Your task to perform on an android device: Go to accessibility settings Image 0: 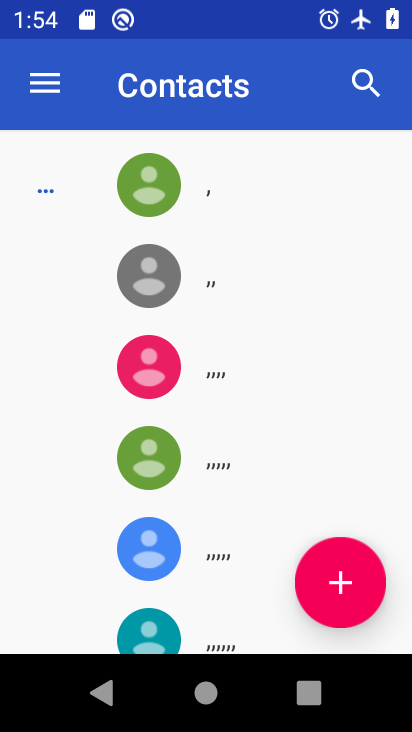
Step 0: press home button
Your task to perform on an android device: Go to accessibility settings Image 1: 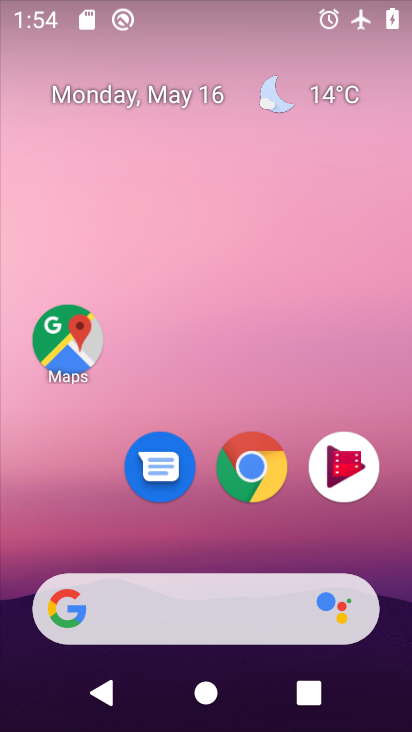
Step 1: drag from (215, 552) to (215, 192)
Your task to perform on an android device: Go to accessibility settings Image 2: 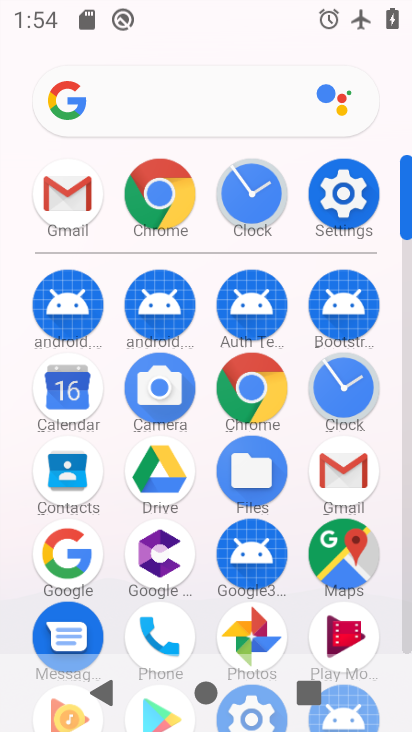
Step 2: click (340, 188)
Your task to perform on an android device: Go to accessibility settings Image 3: 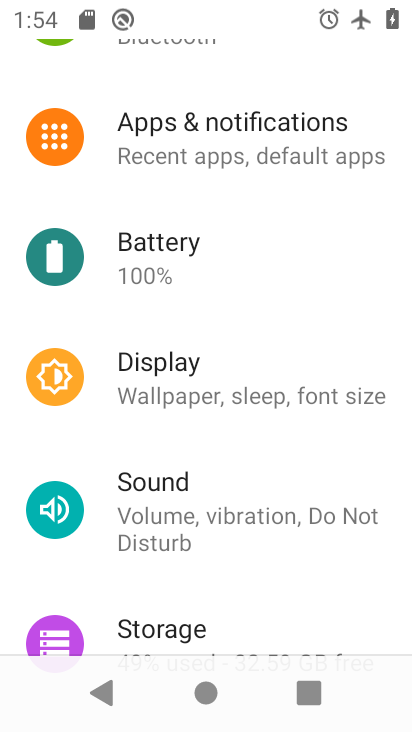
Step 3: drag from (208, 597) to (285, 158)
Your task to perform on an android device: Go to accessibility settings Image 4: 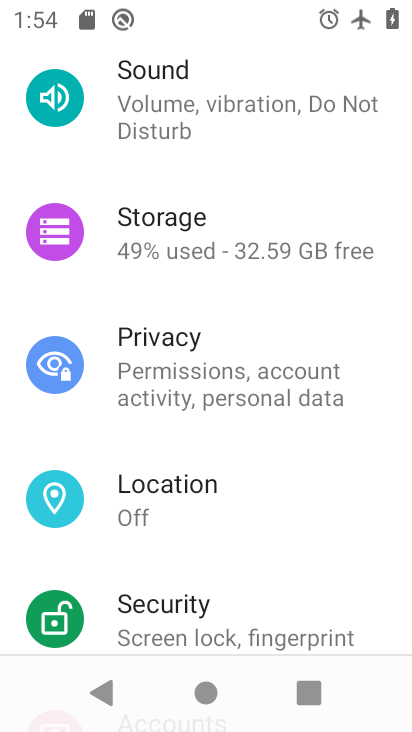
Step 4: drag from (200, 555) to (286, 158)
Your task to perform on an android device: Go to accessibility settings Image 5: 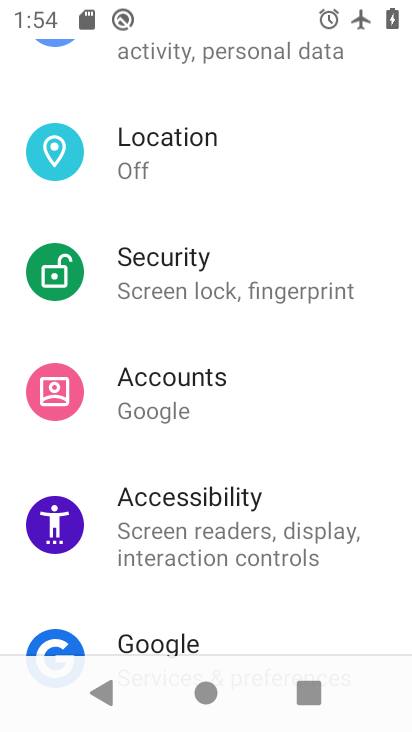
Step 5: click (157, 533)
Your task to perform on an android device: Go to accessibility settings Image 6: 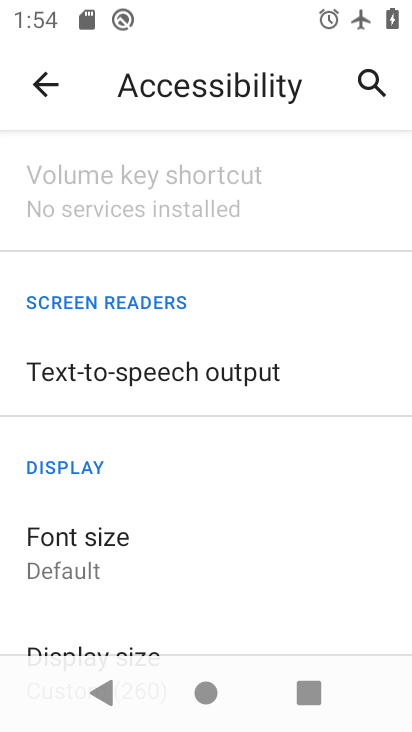
Step 6: task complete